Your task to perform on an android device: Add beats solo 3 to the cart on ebay Image 0: 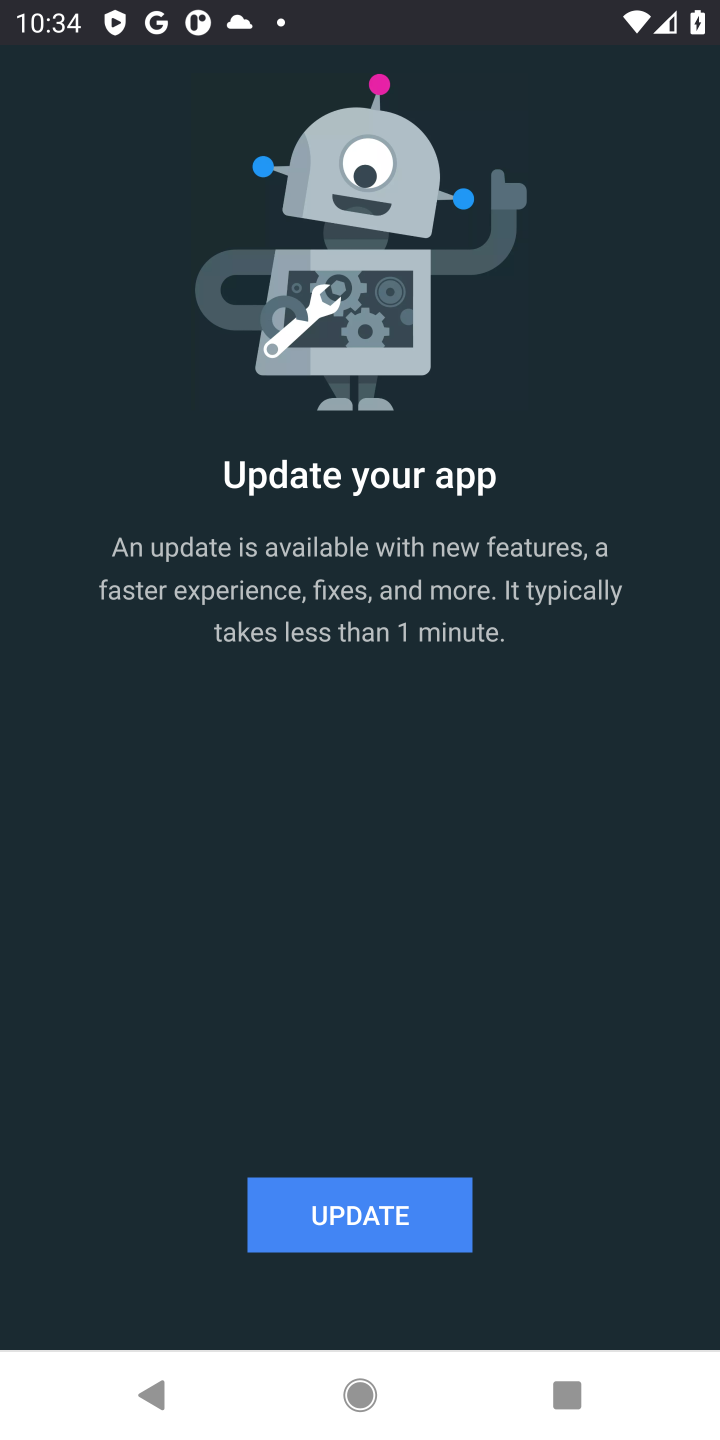
Step 0: press home button
Your task to perform on an android device: Add beats solo 3 to the cart on ebay Image 1: 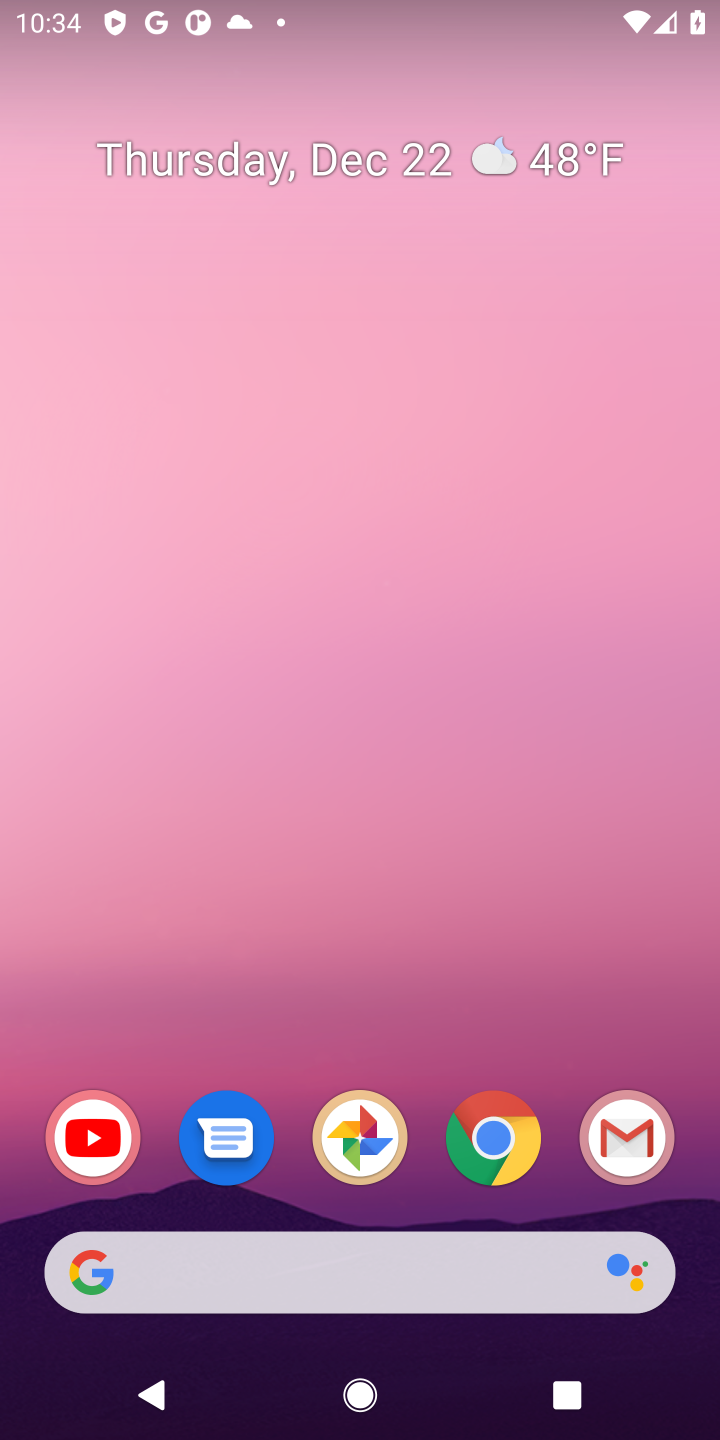
Step 1: click (483, 1148)
Your task to perform on an android device: Add beats solo 3 to the cart on ebay Image 2: 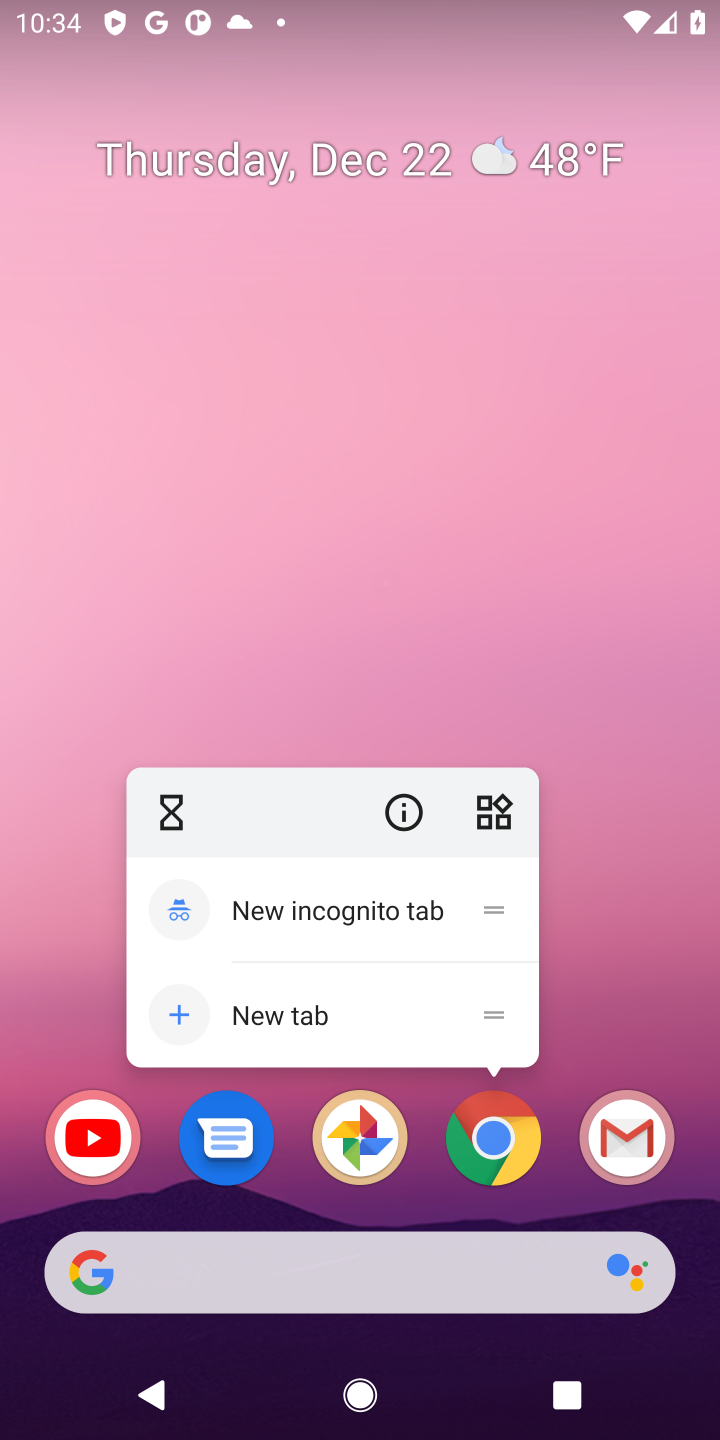
Step 2: click (476, 1136)
Your task to perform on an android device: Add beats solo 3 to the cart on ebay Image 3: 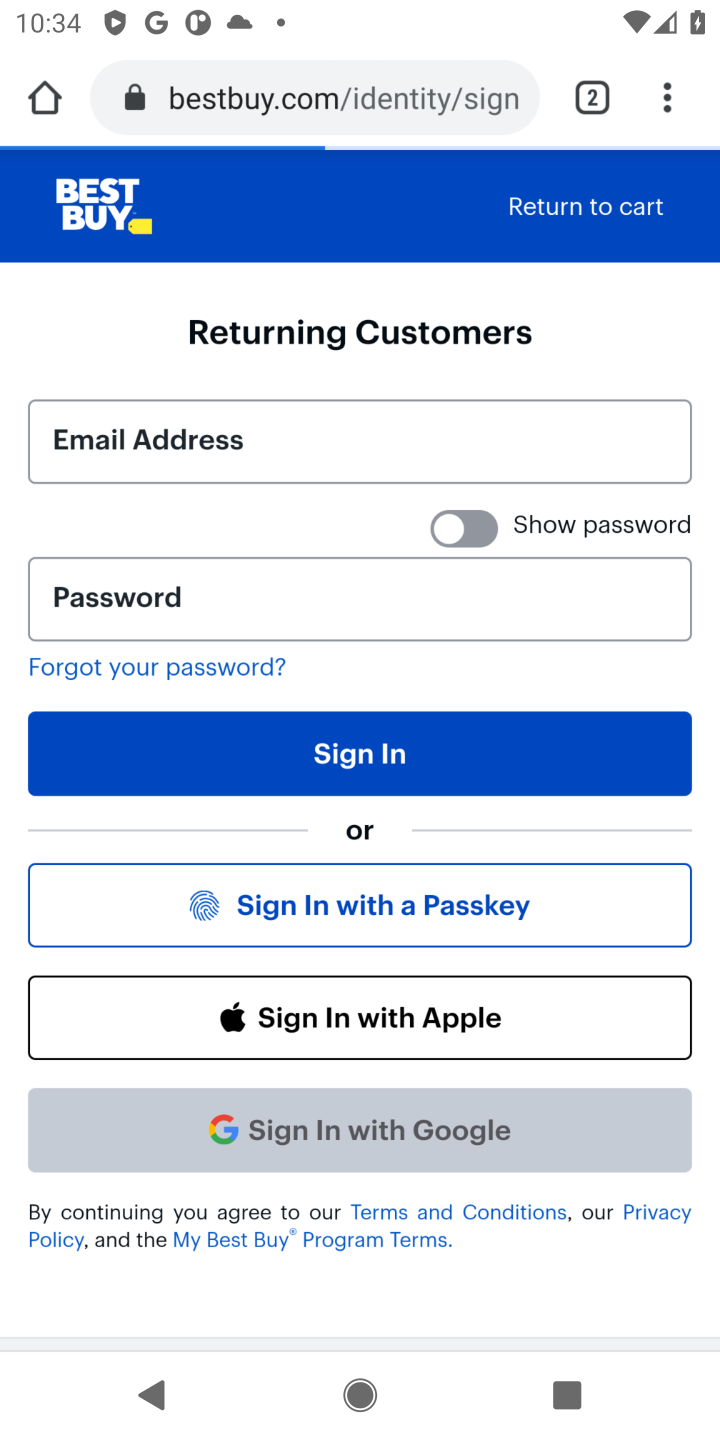
Step 3: click (476, 1136)
Your task to perform on an android device: Add beats solo 3 to the cart on ebay Image 4: 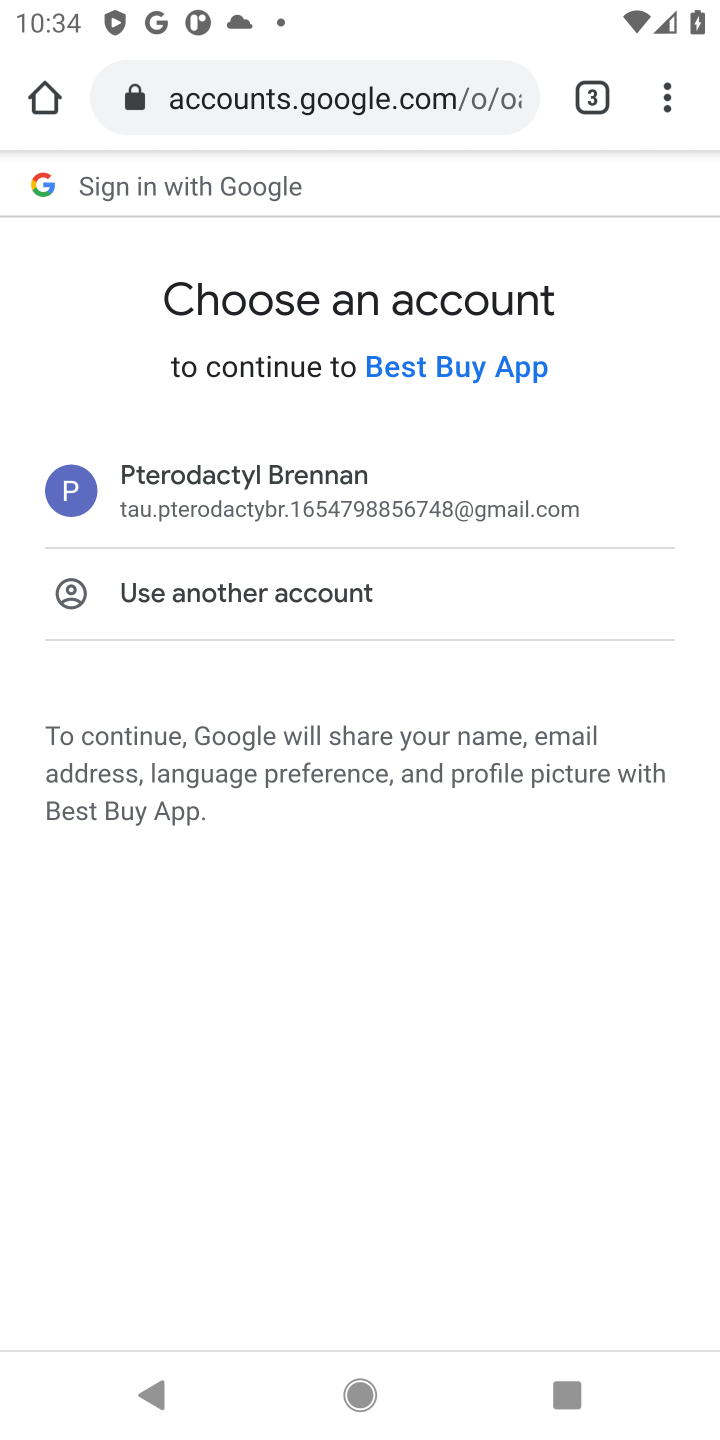
Step 4: click (39, 99)
Your task to perform on an android device: Add beats solo 3 to the cart on ebay Image 5: 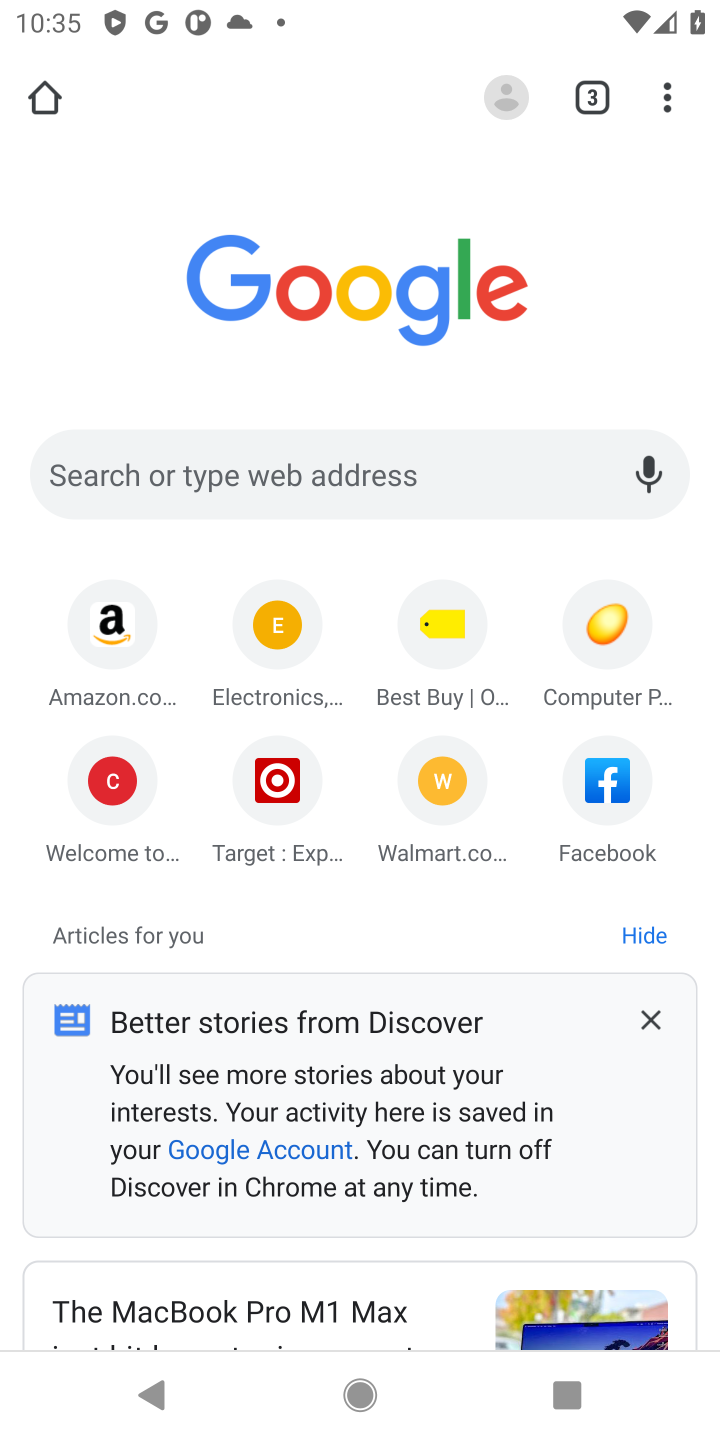
Step 5: click (385, 472)
Your task to perform on an android device: Add beats solo 3 to the cart on ebay Image 6: 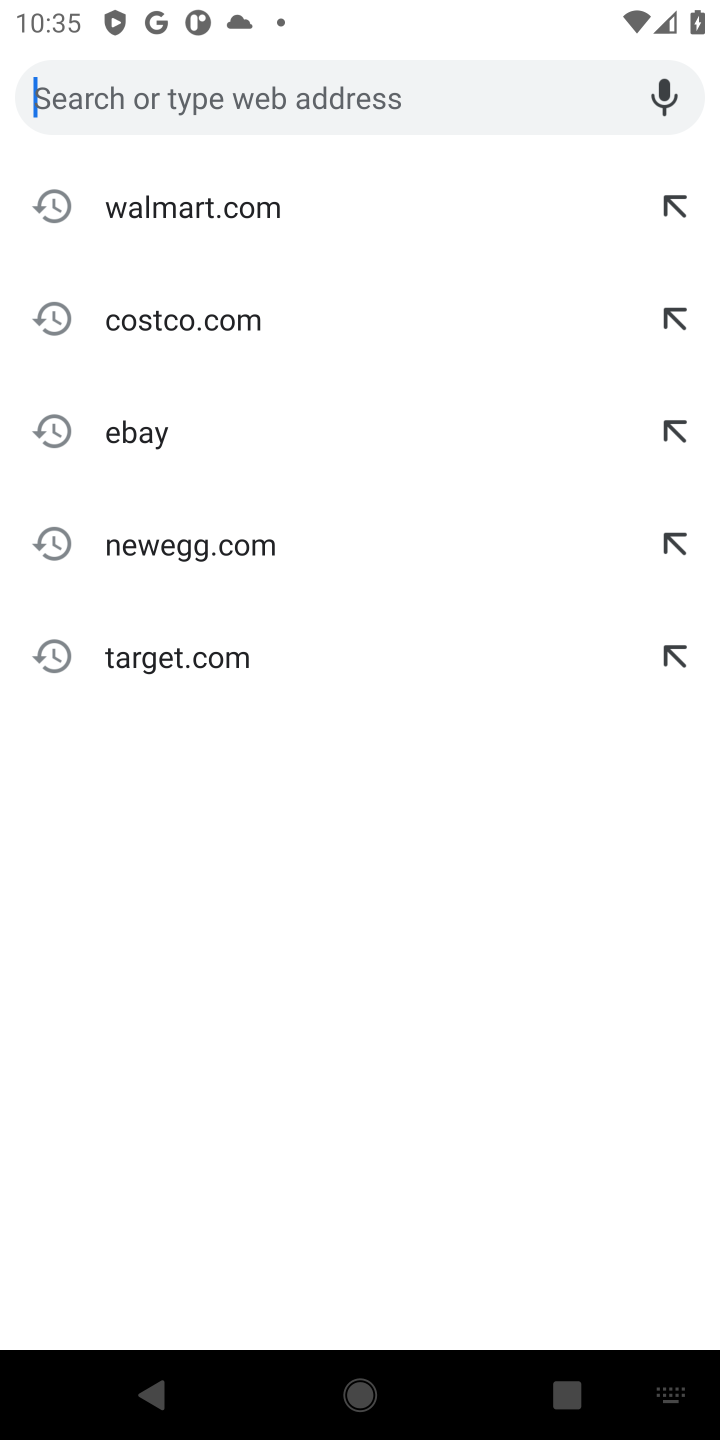
Step 6: click (125, 424)
Your task to perform on an android device: Add beats solo 3 to the cart on ebay Image 7: 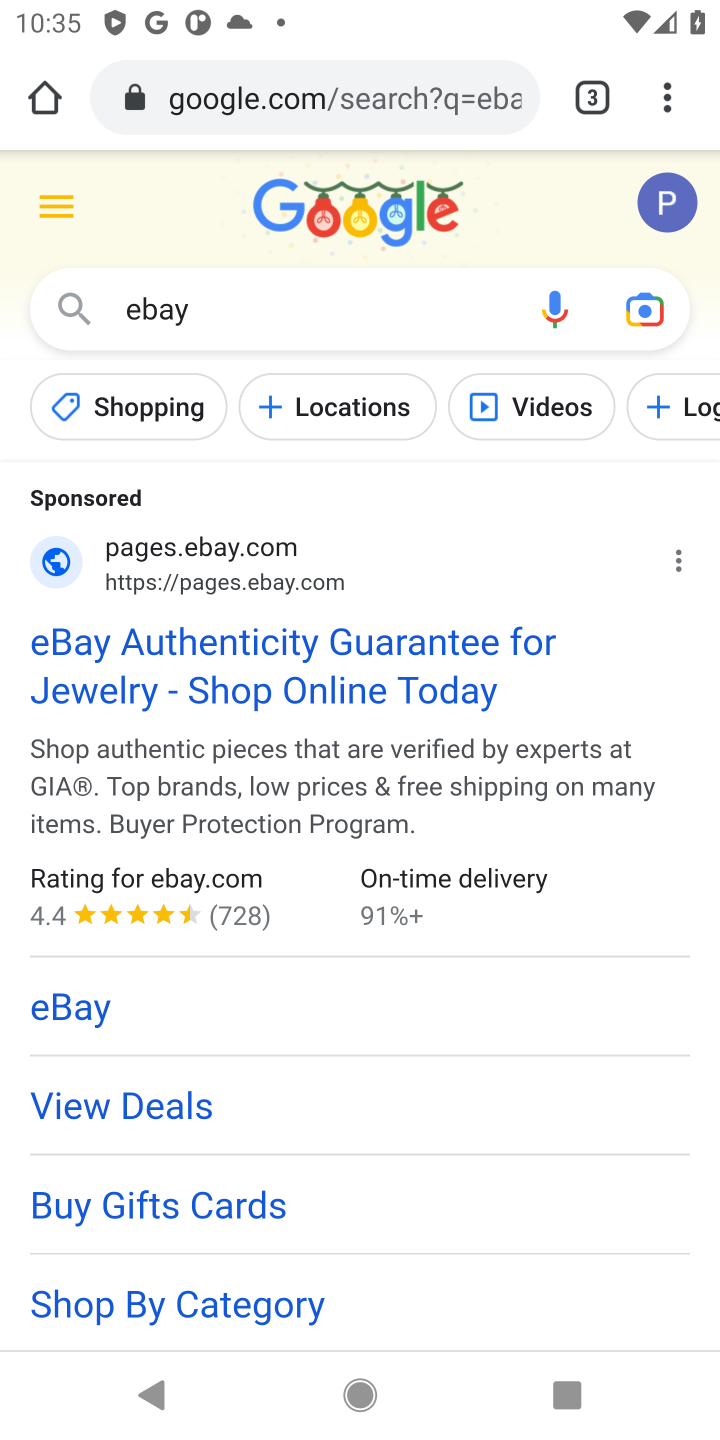
Step 7: click (225, 585)
Your task to perform on an android device: Add beats solo 3 to the cart on ebay Image 8: 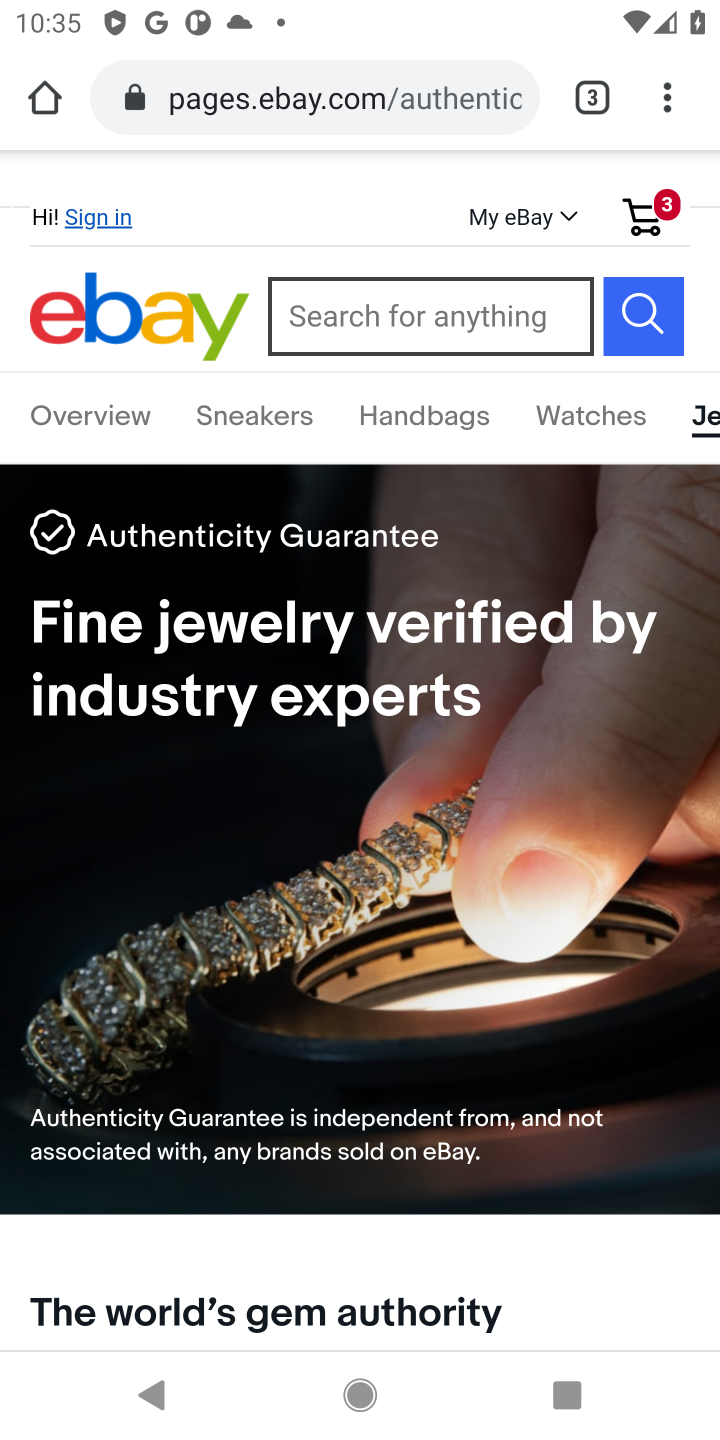
Step 8: click (543, 307)
Your task to perform on an android device: Add beats solo 3 to the cart on ebay Image 9: 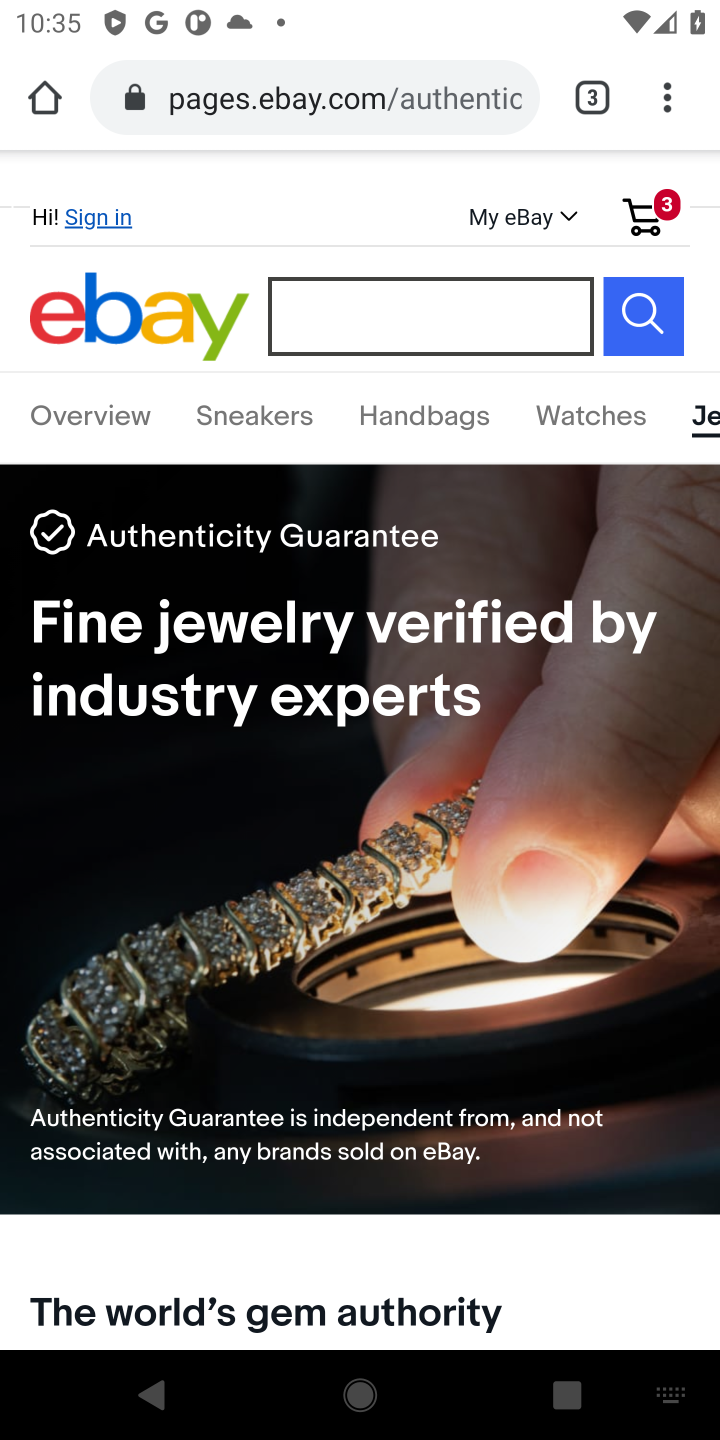
Step 9: press enter
Your task to perform on an android device: Add beats solo 3 to the cart on ebay Image 10: 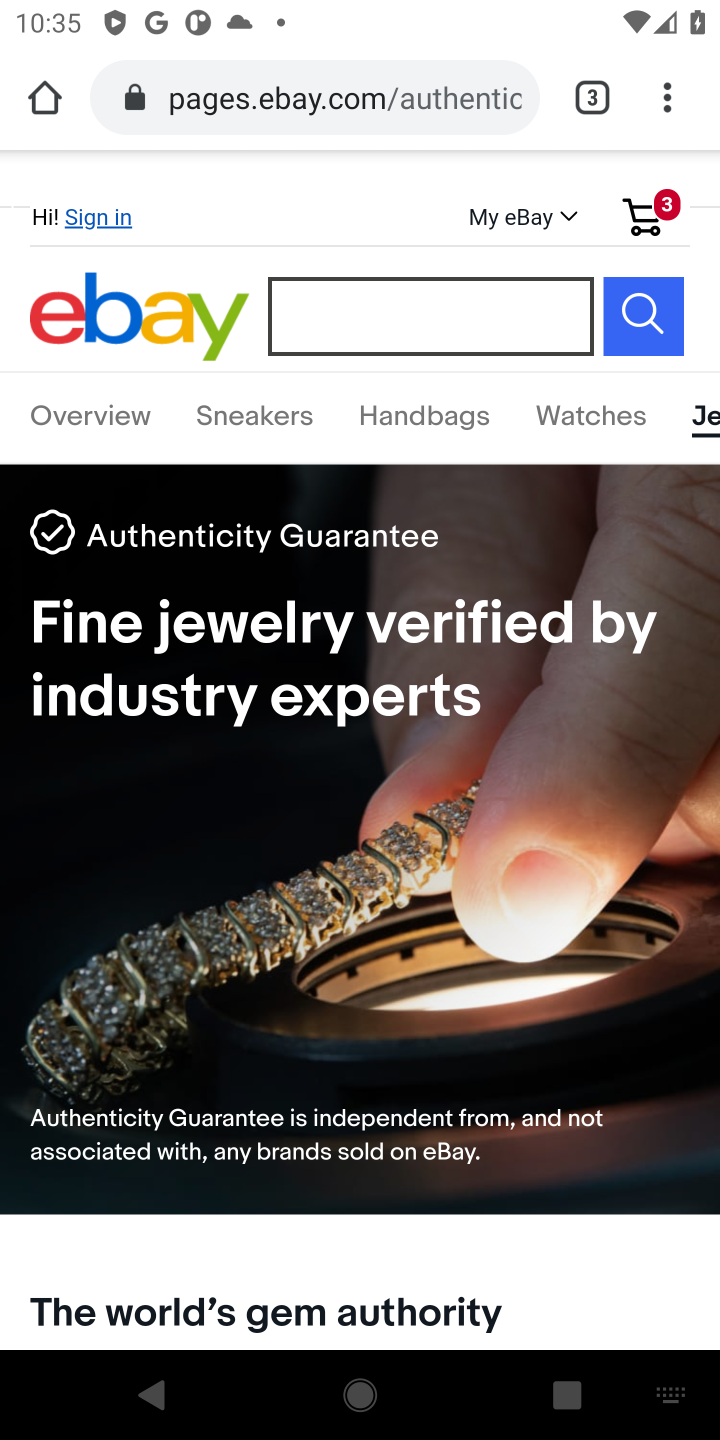
Step 10: type "beats solo 3"
Your task to perform on an android device: Add beats solo 3 to the cart on ebay Image 11: 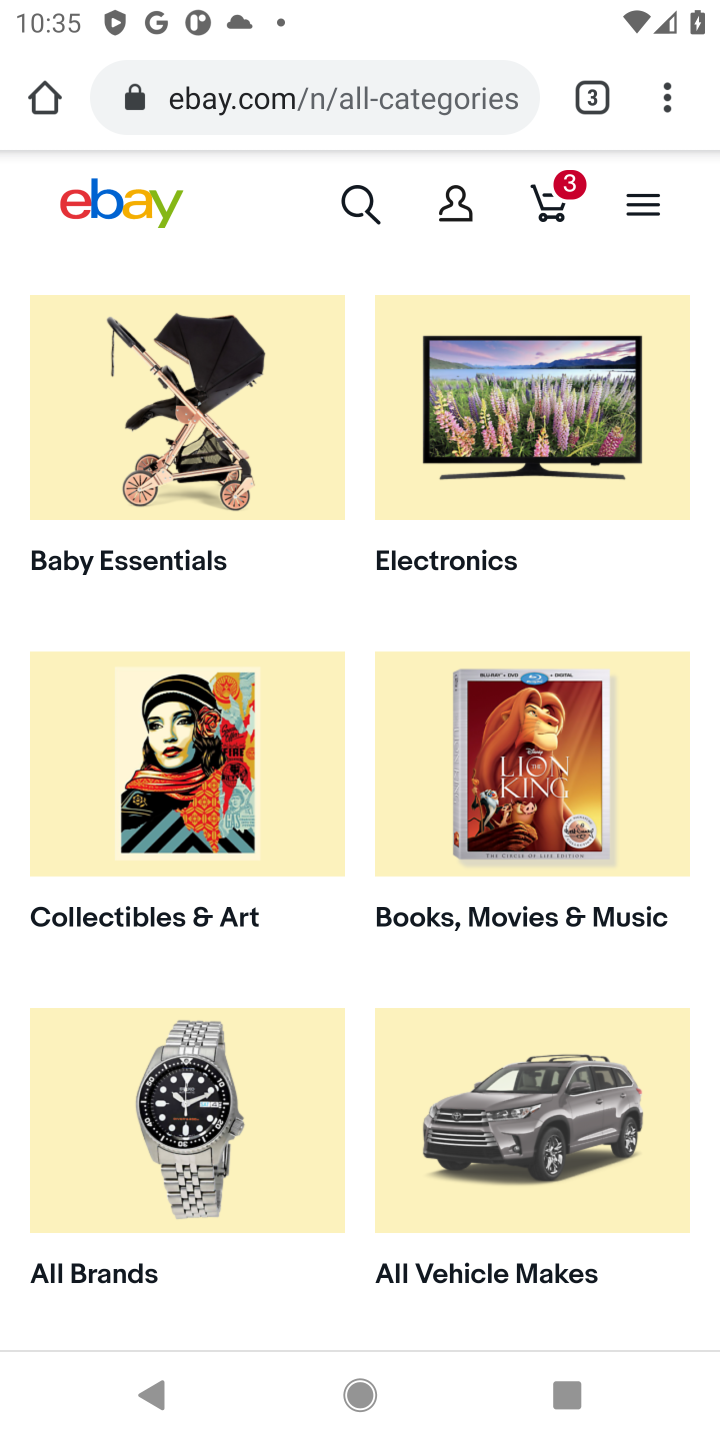
Step 11: click (356, 200)
Your task to perform on an android device: Add beats solo 3 to the cart on ebay Image 12: 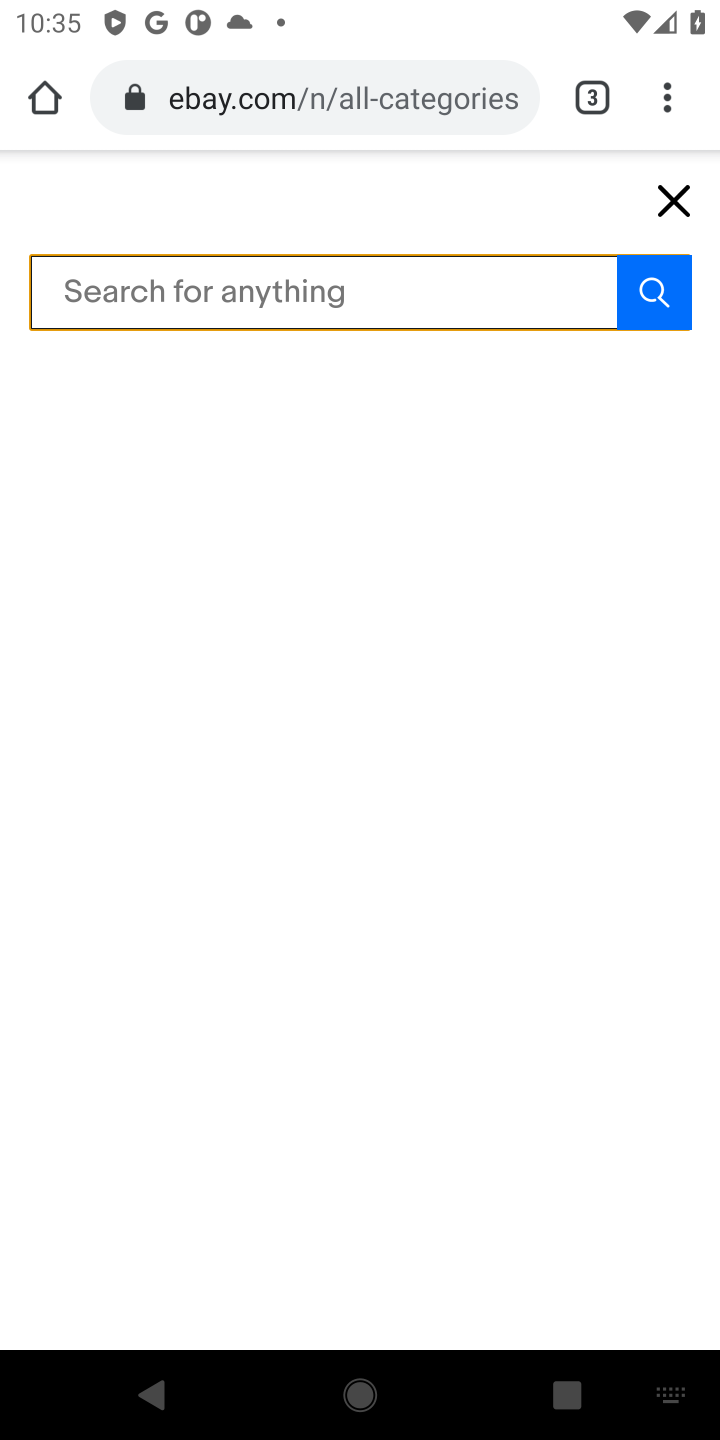
Step 12: press enter
Your task to perform on an android device: Add beats solo 3 to the cart on ebay Image 13: 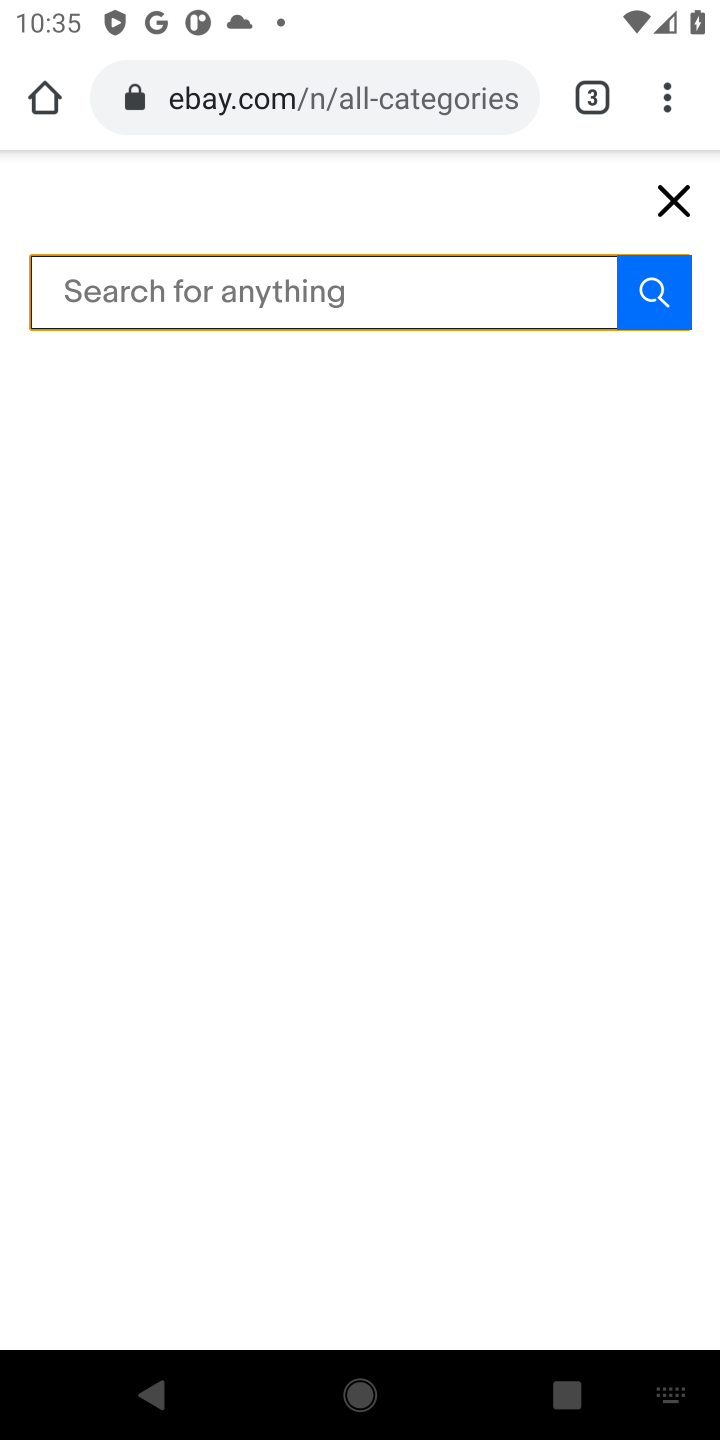
Step 13: type "beats solo 3"
Your task to perform on an android device: Add beats solo 3 to the cart on ebay Image 14: 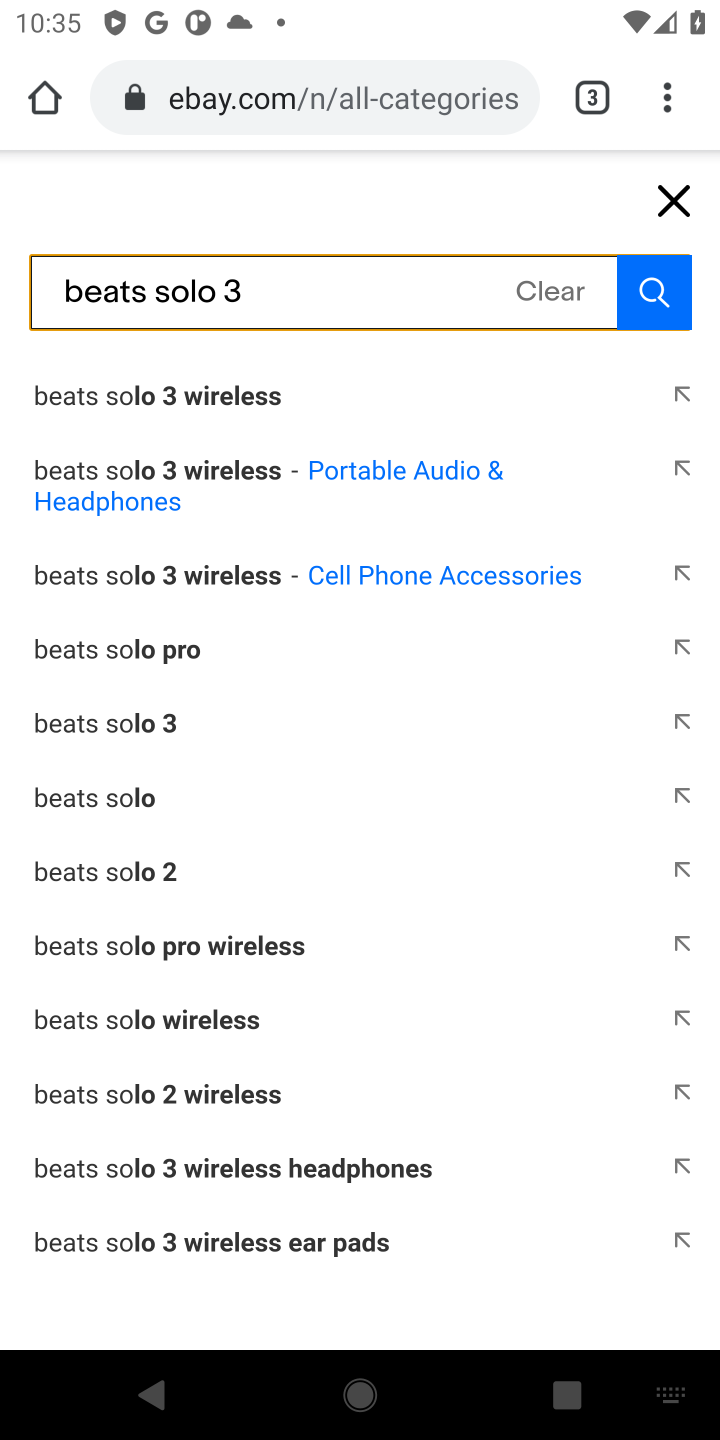
Step 14: click (155, 723)
Your task to perform on an android device: Add beats solo 3 to the cart on ebay Image 15: 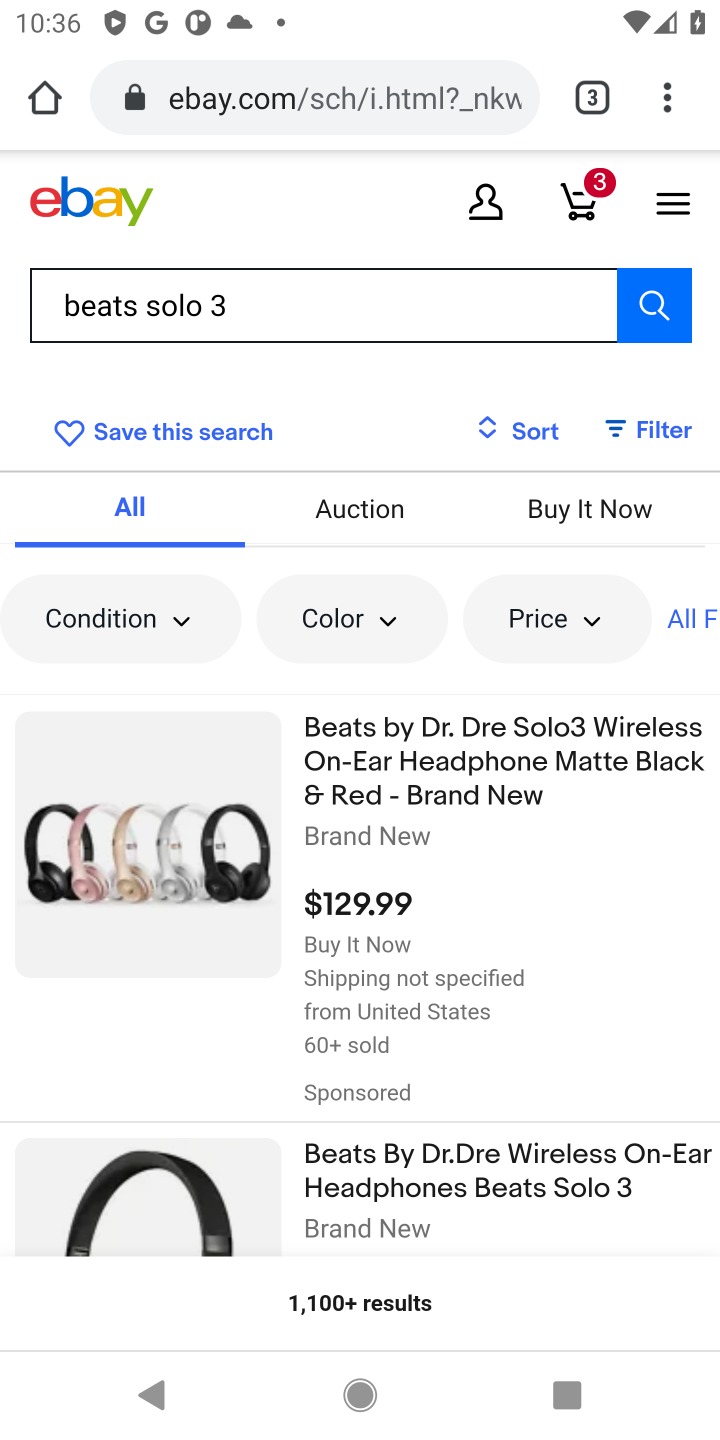
Step 15: click (130, 1193)
Your task to perform on an android device: Add beats solo 3 to the cart on ebay Image 16: 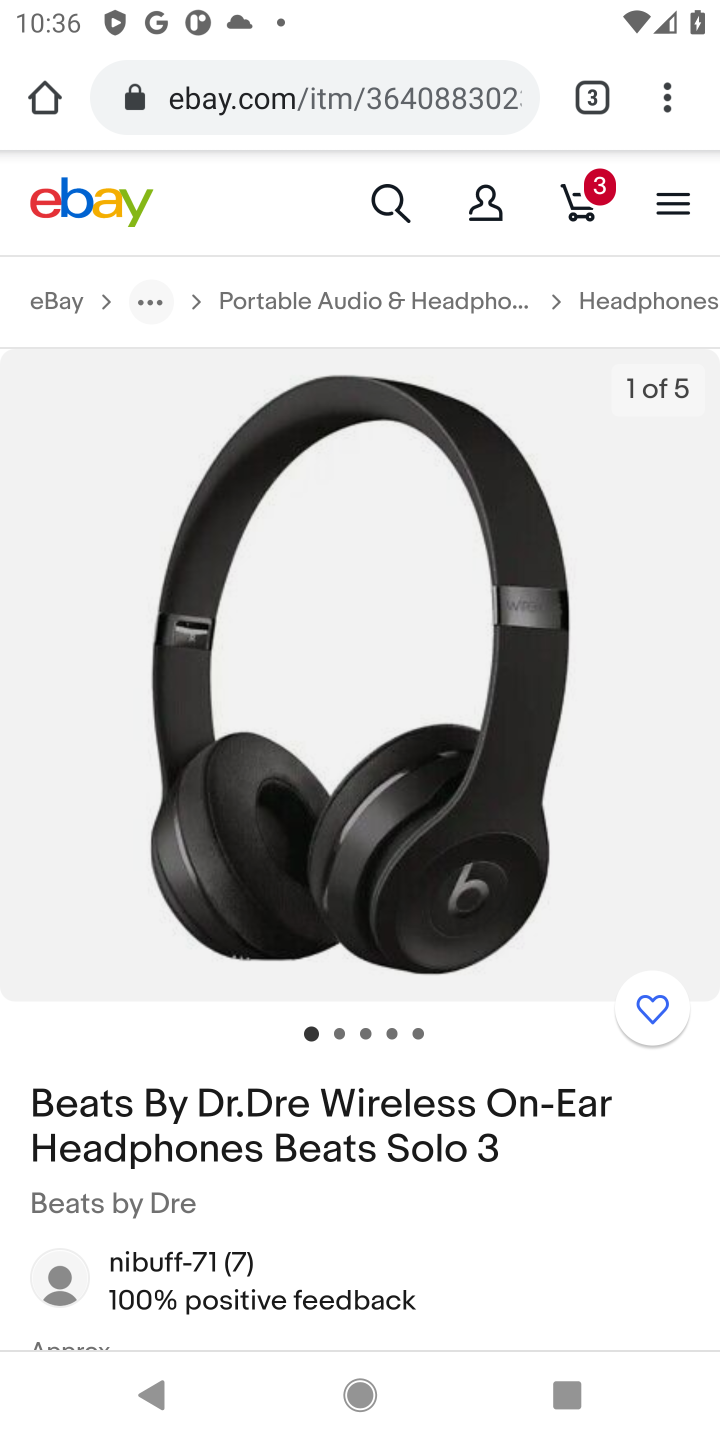
Step 16: drag from (223, 1139) to (303, 531)
Your task to perform on an android device: Add beats solo 3 to the cart on ebay Image 17: 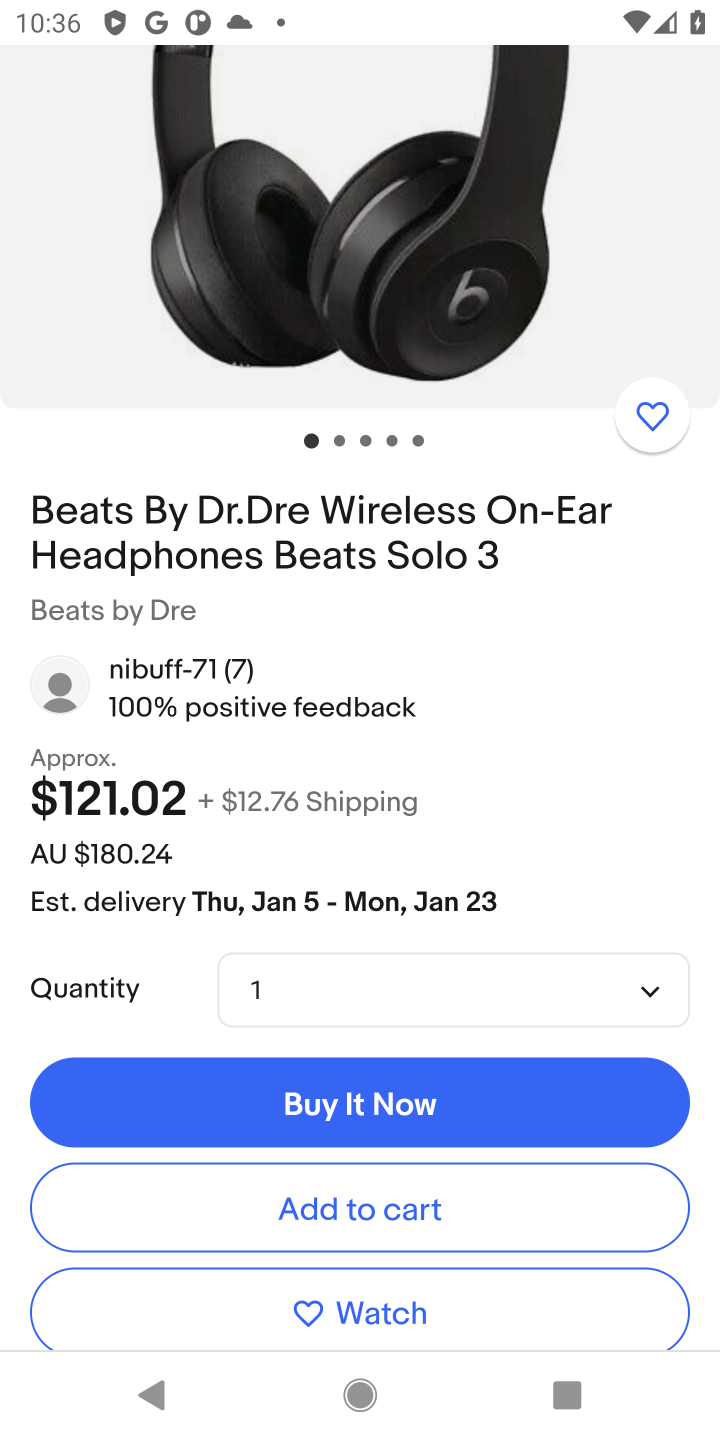
Step 17: click (372, 1216)
Your task to perform on an android device: Add beats solo 3 to the cart on ebay Image 18: 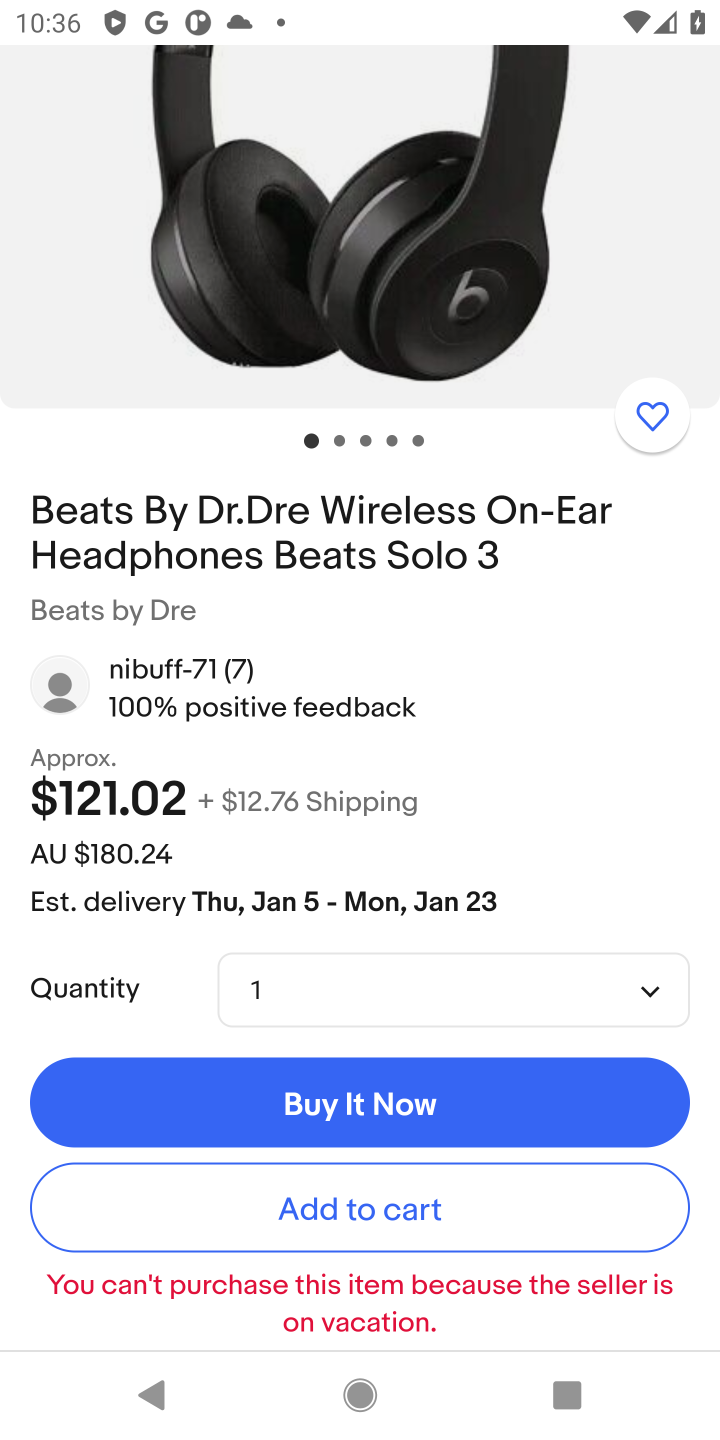
Step 18: drag from (600, 808) to (671, 145)
Your task to perform on an android device: Add beats solo 3 to the cart on ebay Image 19: 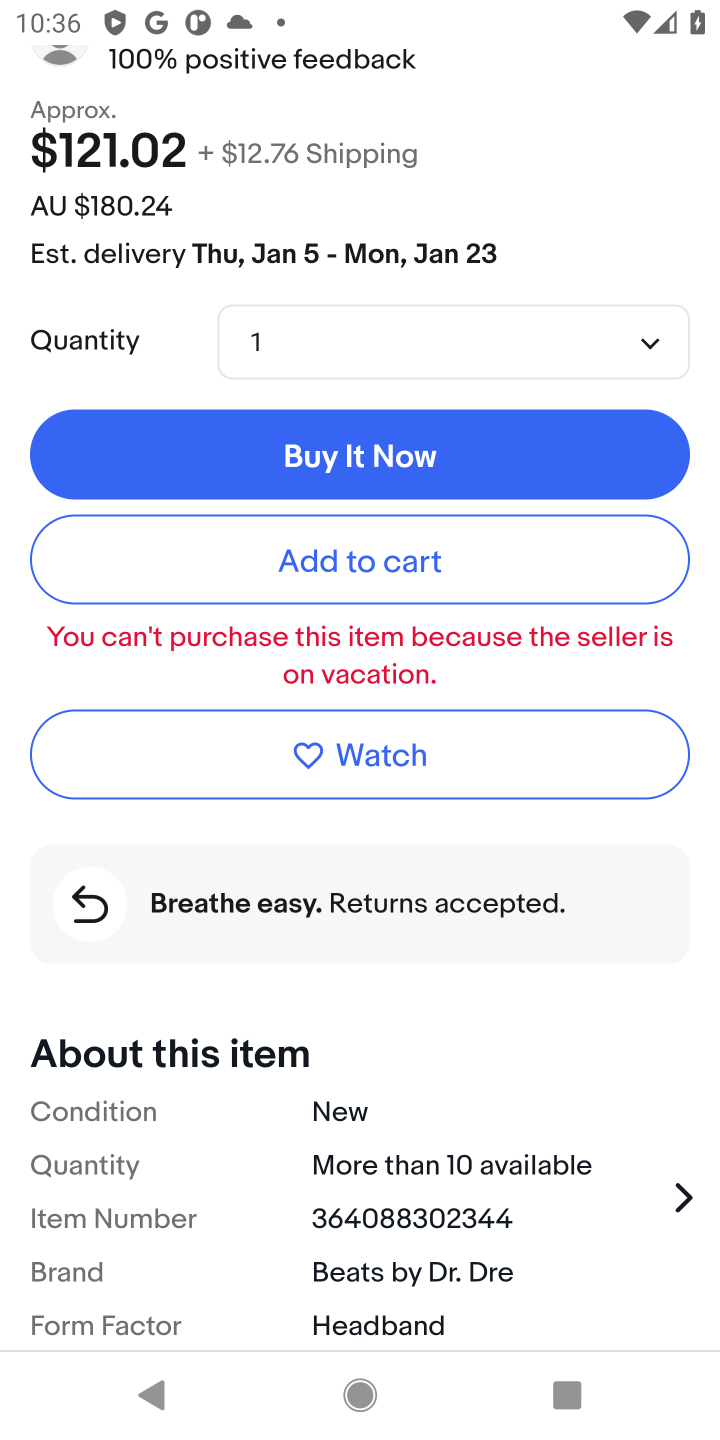
Step 19: press back button
Your task to perform on an android device: Add beats solo 3 to the cart on ebay Image 20: 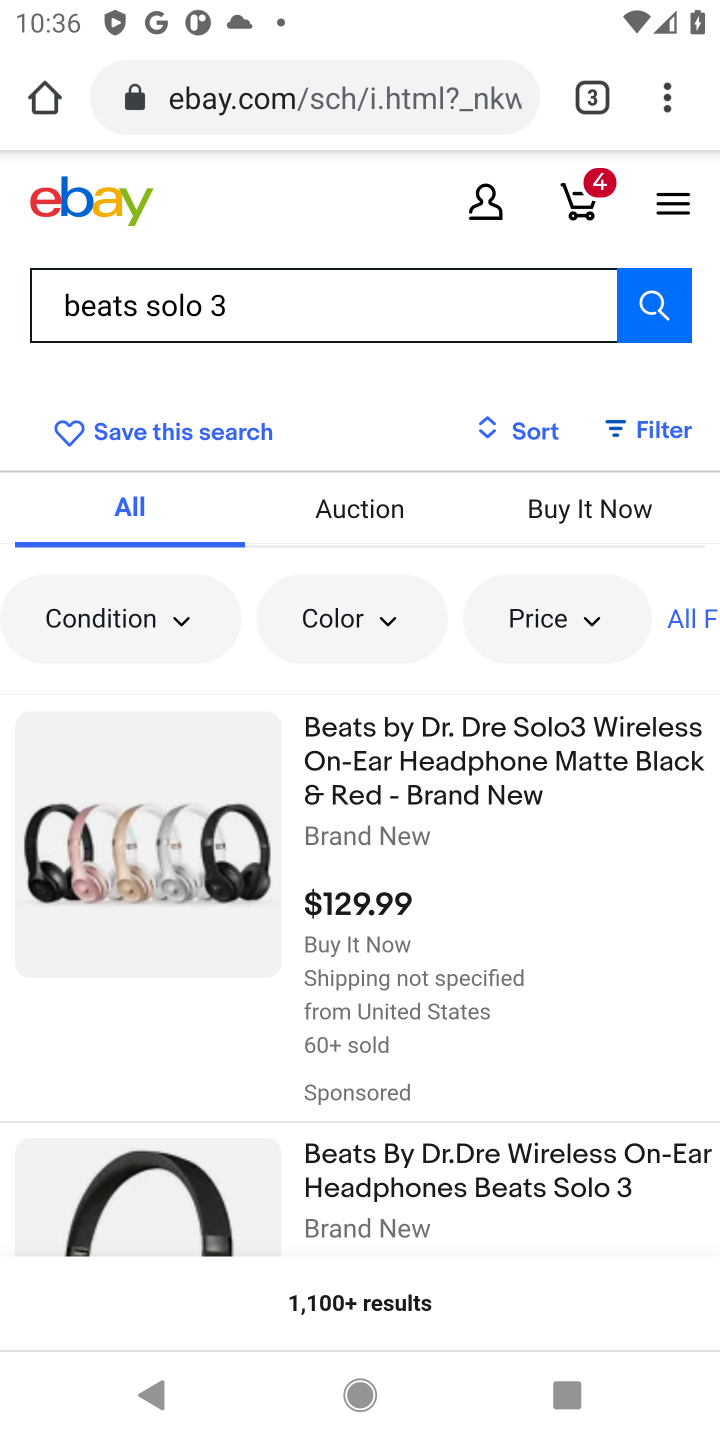
Step 20: click (553, 739)
Your task to perform on an android device: Add beats solo 3 to the cart on ebay Image 21: 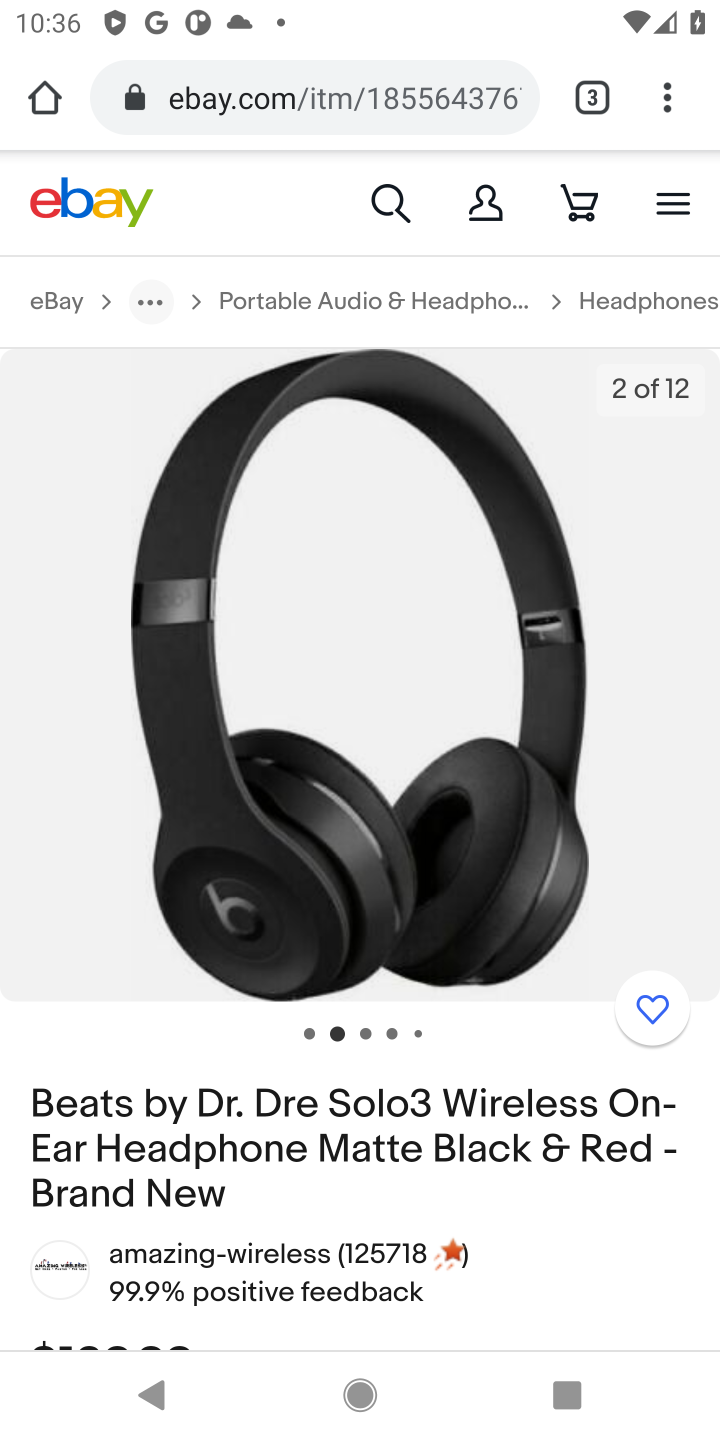
Step 21: drag from (530, 674) to (511, 352)
Your task to perform on an android device: Add beats solo 3 to the cart on ebay Image 22: 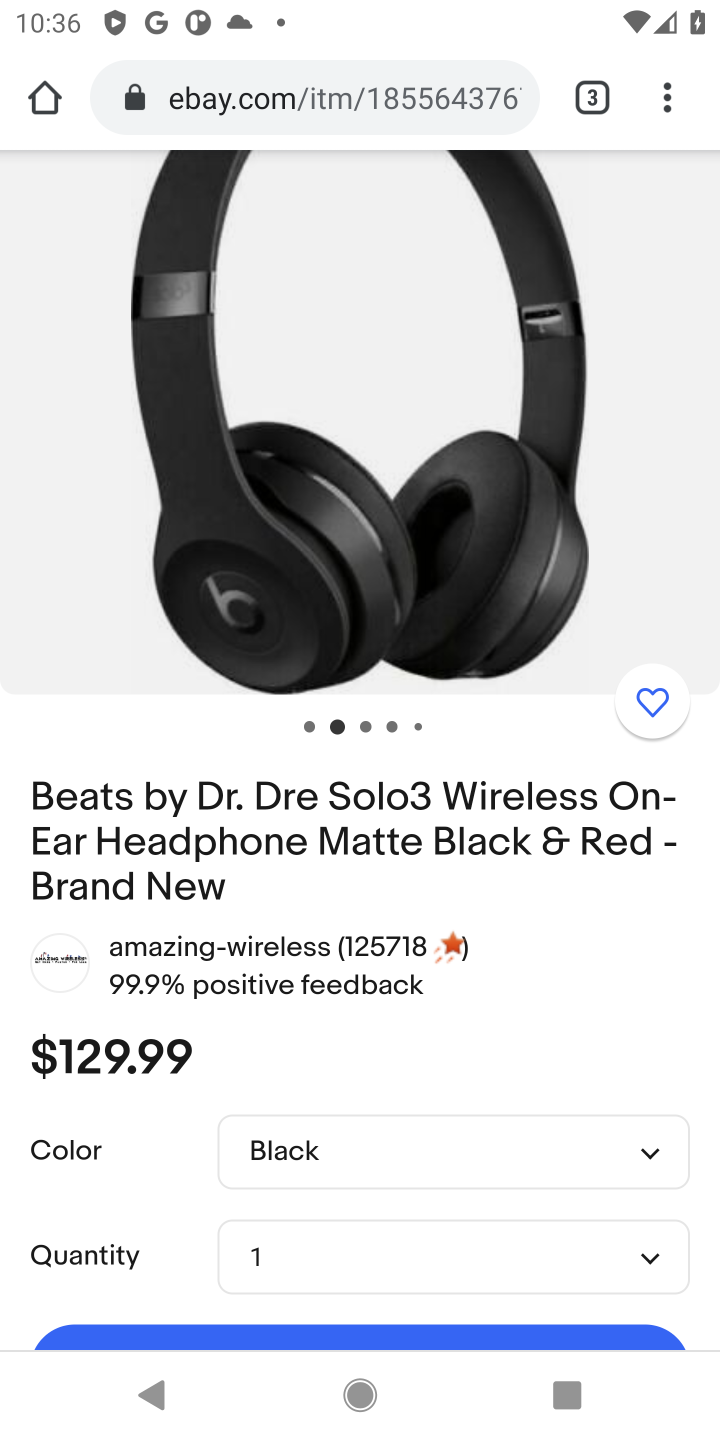
Step 22: drag from (627, 877) to (585, 487)
Your task to perform on an android device: Add beats solo 3 to the cart on ebay Image 23: 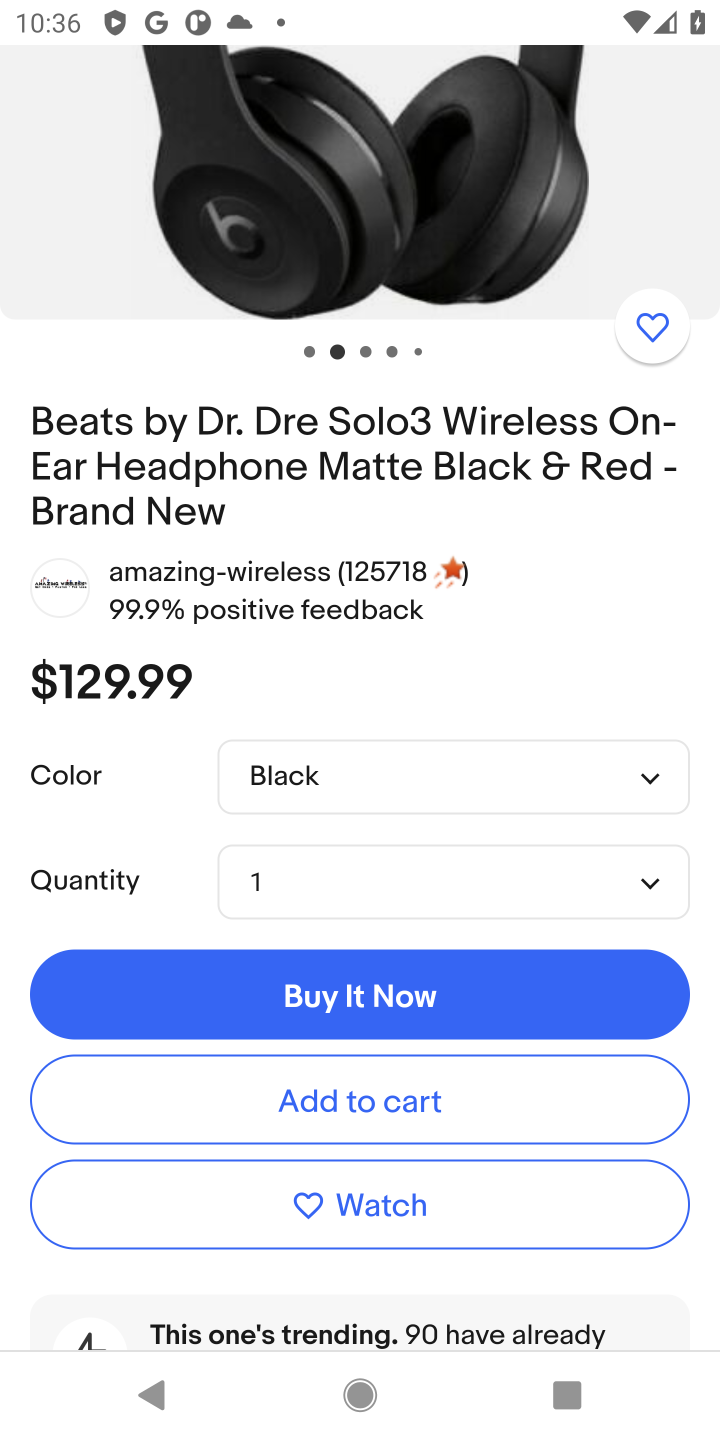
Step 23: click (433, 1094)
Your task to perform on an android device: Add beats solo 3 to the cart on ebay Image 24: 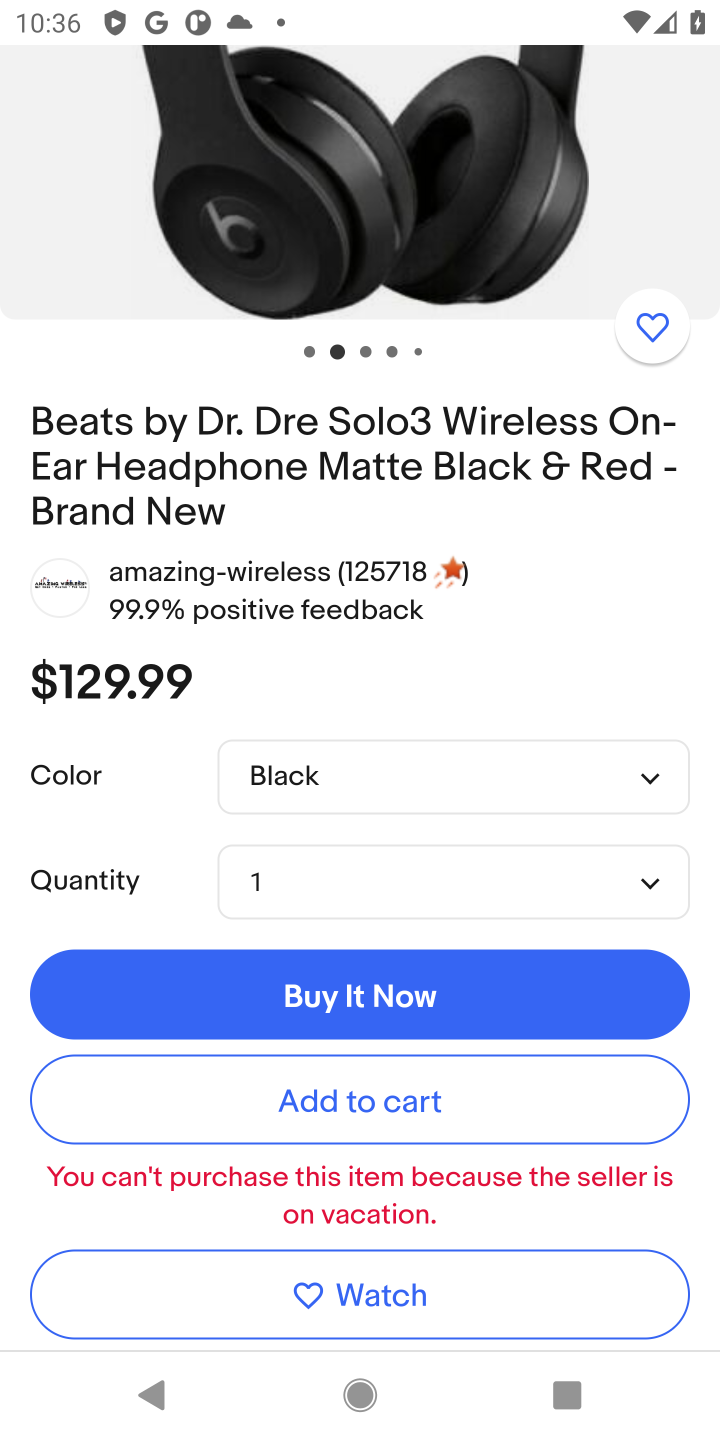
Step 24: click (660, 880)
Your task to perform on an android device: Add beats solo 3 to the cart on ebay Image 25: 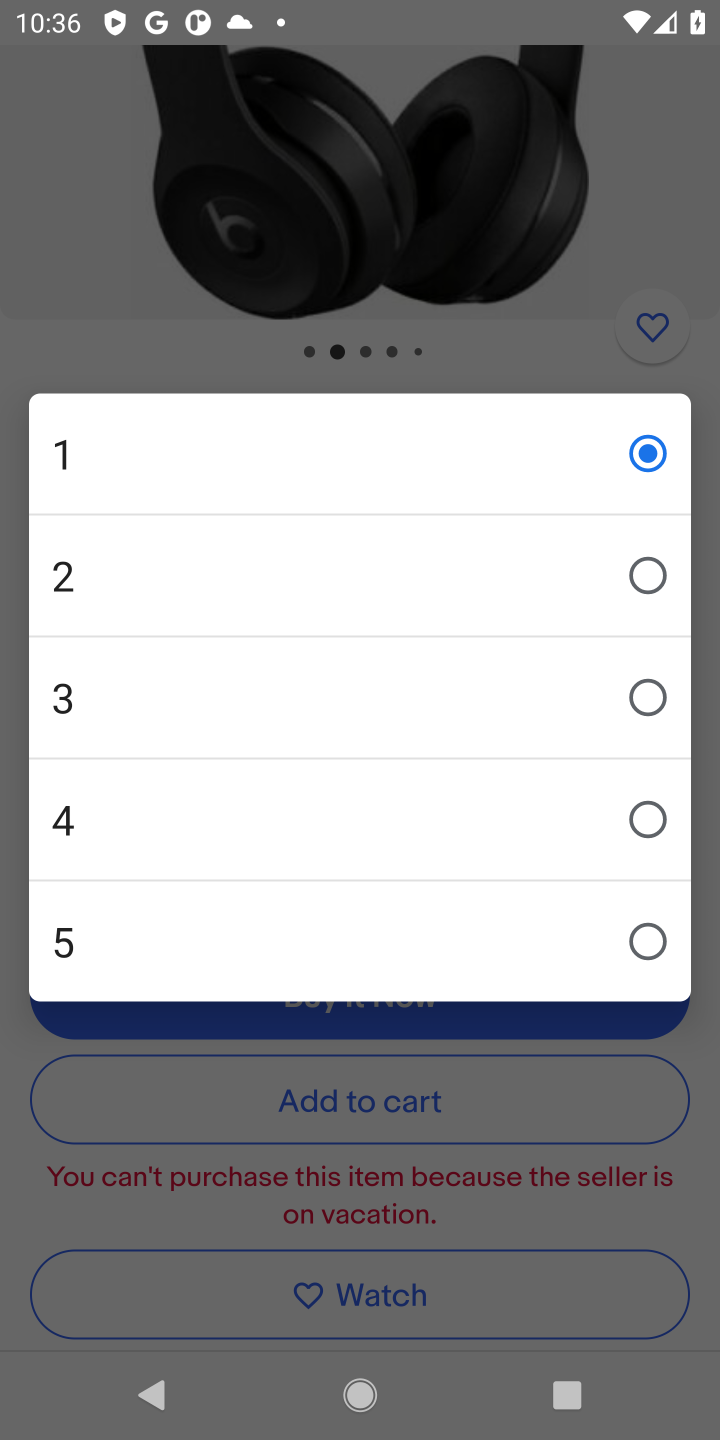
Step 25: click (639, 444)
Your task to perform on an android device: Add beats solo 3 to the cart on ebay Image 26: 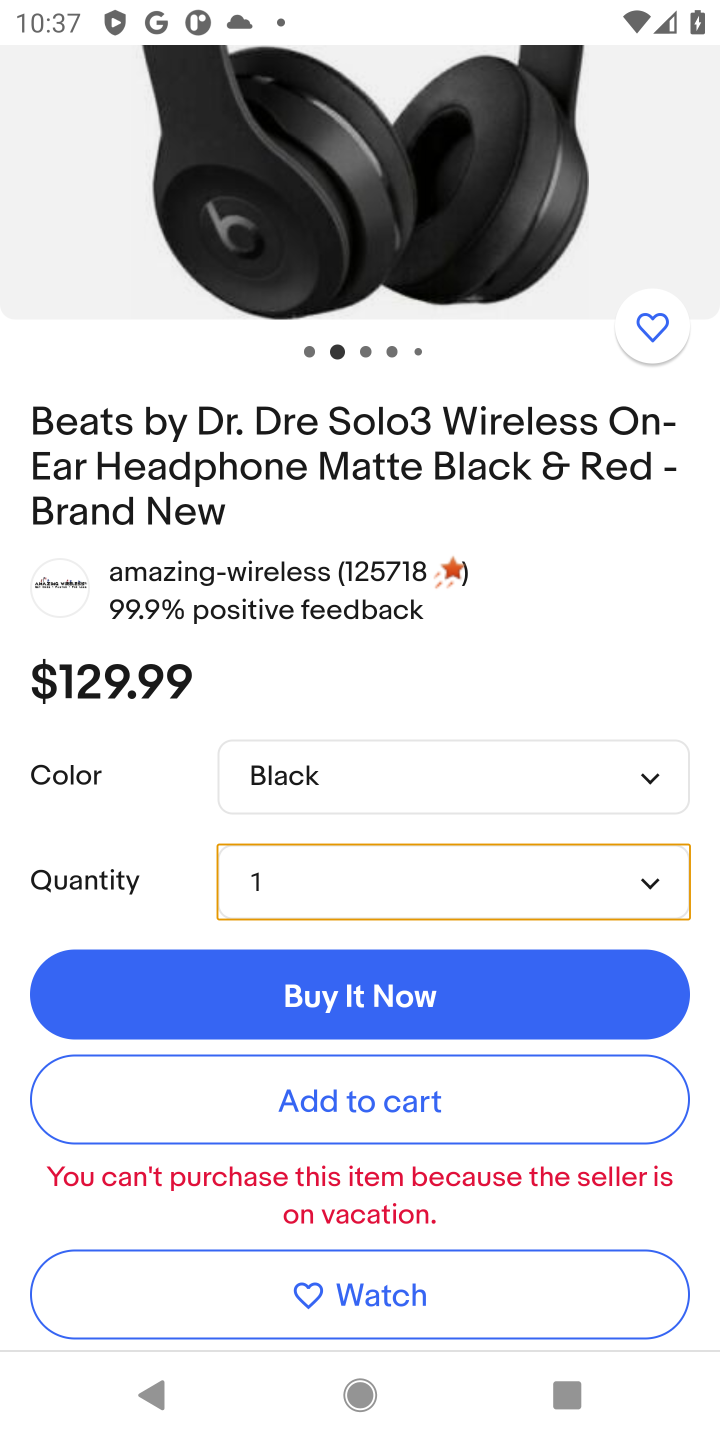
Step 26: press back button
Your task to perform on an android device: Add beats solo 3 to the cart on ebay Image 27: 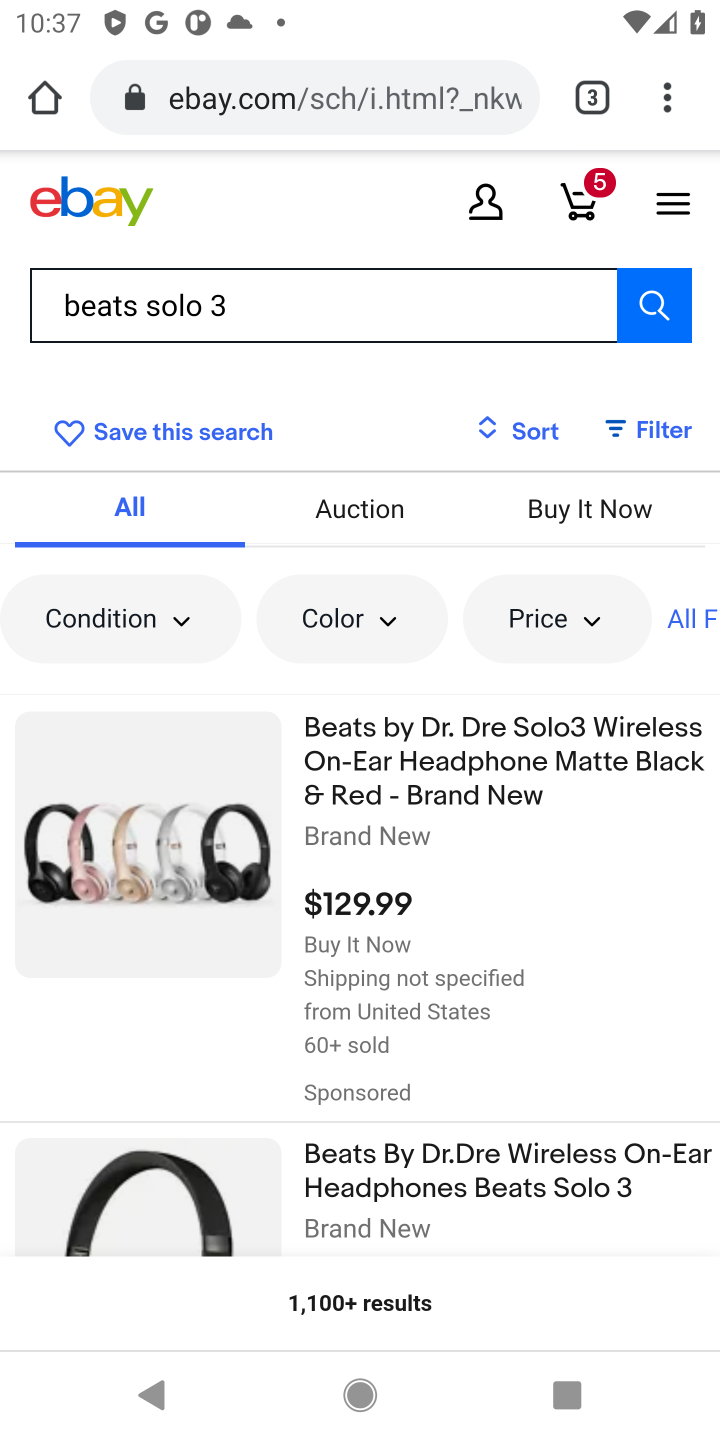
Step 27: drag from (591, 888) to (646, 198)
Your task to perform on an android device: Add beats solo 3 to the cart on ebay Image 28: 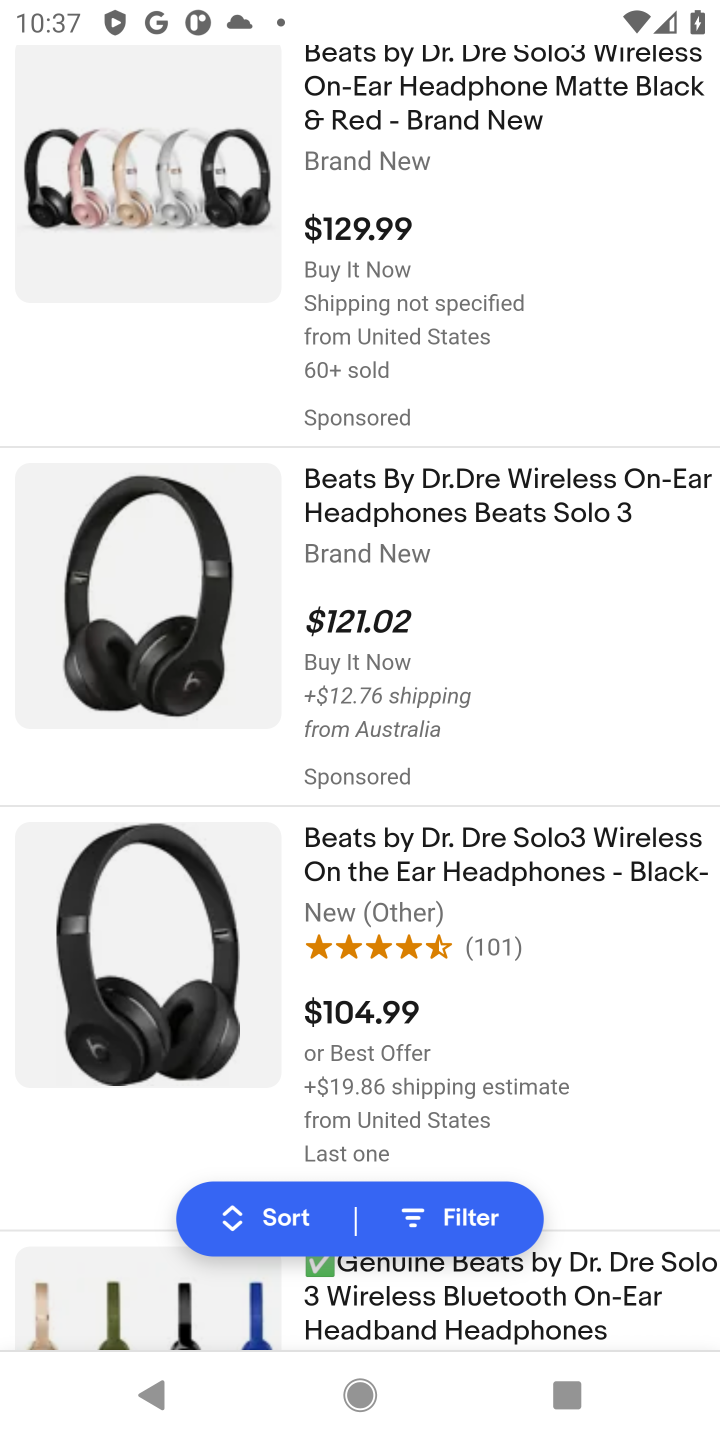
Step 28: click (168, 922)
Your task to perform on an android device: Add beats solo 3 to the cart on ebay Image 29: 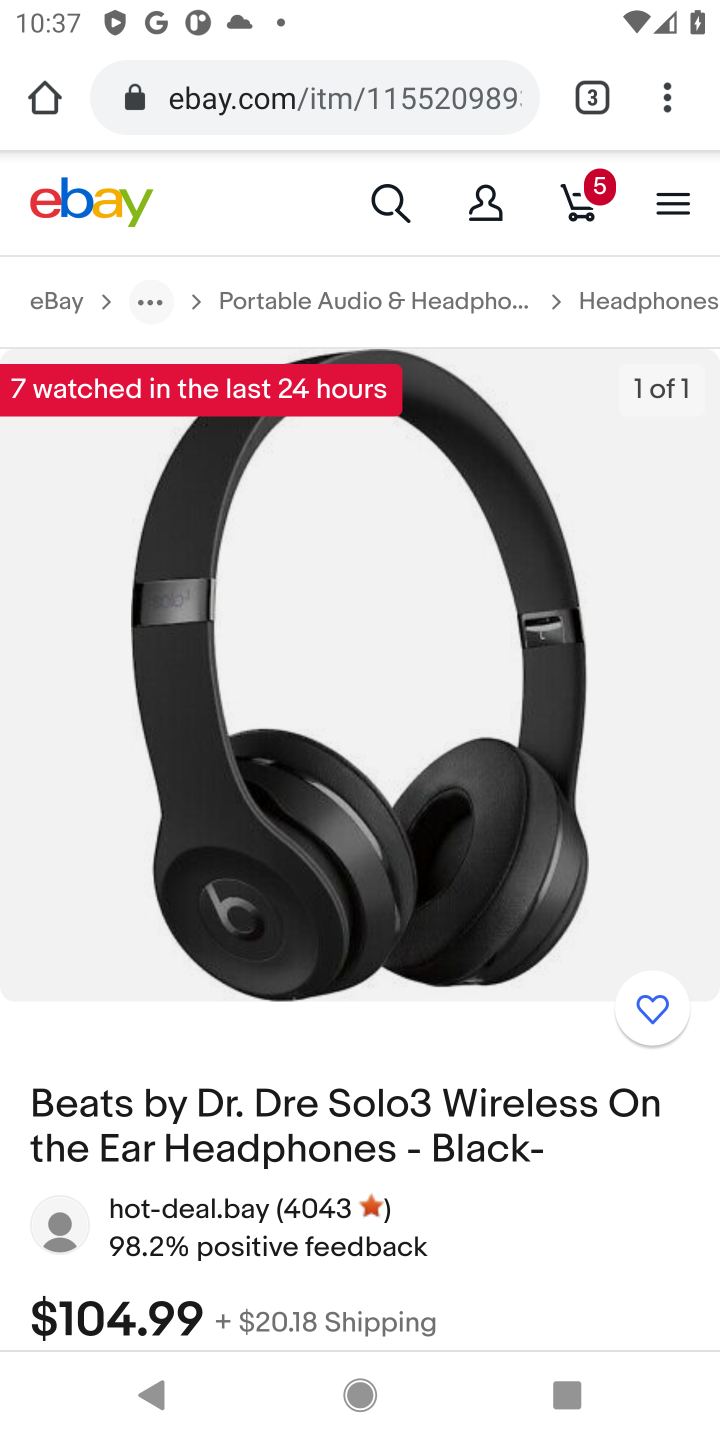
Step 29: drag from (545, 1165) to (520, 270)
Your task to perform on an android device: Add beats solo 3 to the cart on ebay Image 30: 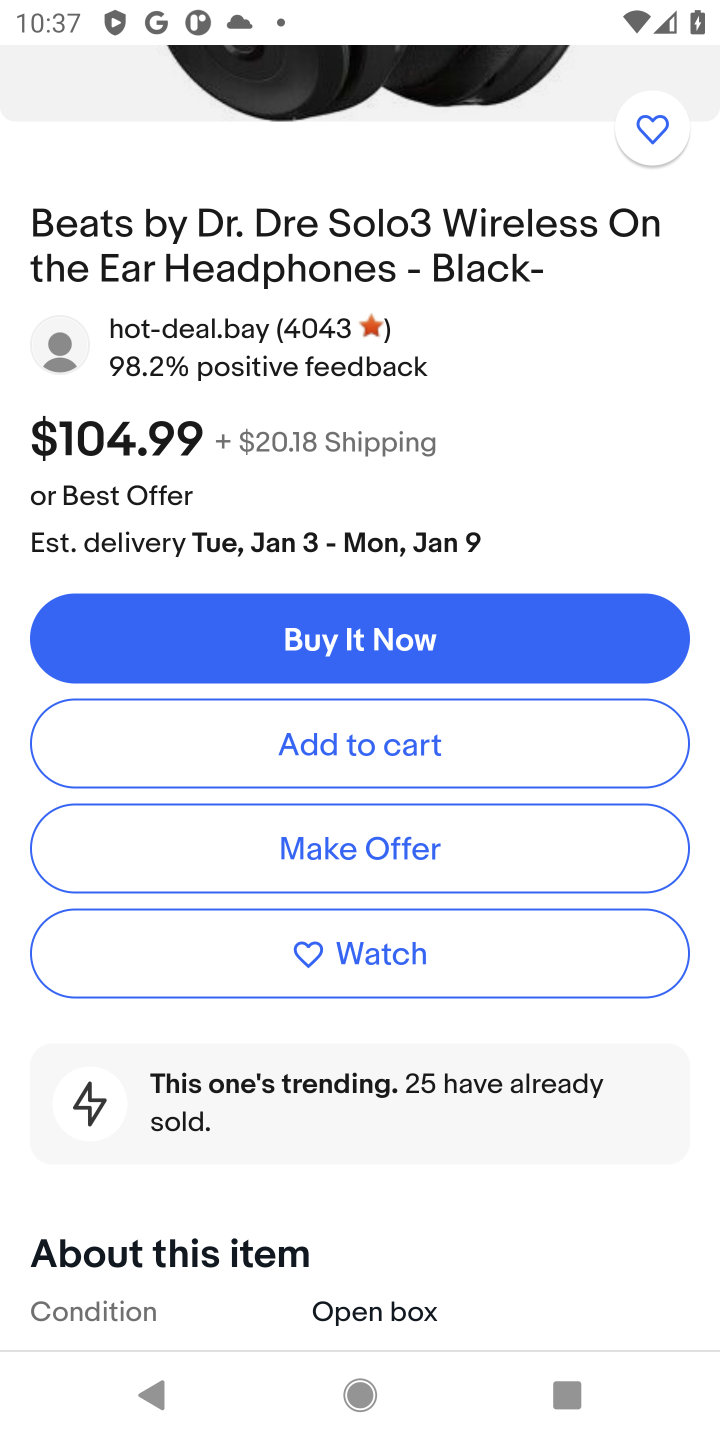
Step 30: click (402, 762)
Your task to perform on an android device: Add beats solo 3 to the cart on ebay Image 31: 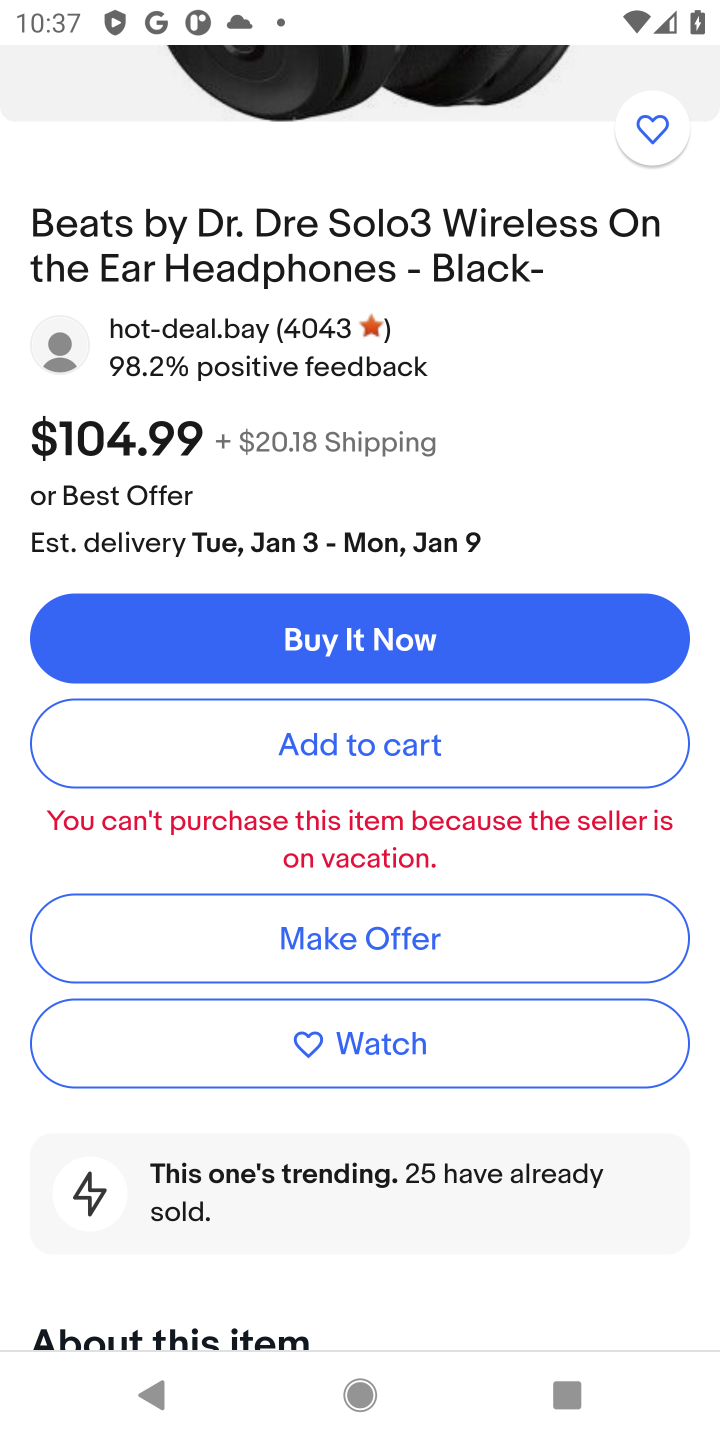
Step 31: task complete